Your task to perform on an android device: turn vacation reply on in the gmail app Image 0: 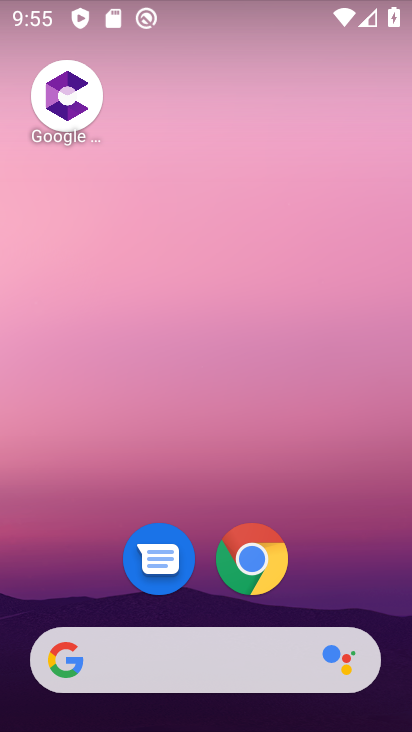
Step 0: drag from (357, 571) to (347, 68)
Your task to perform on an android device: turn vacation reply on in the gmail app Image 1: 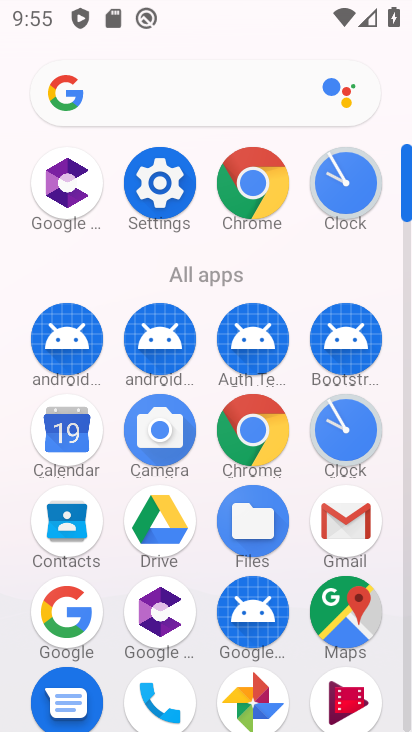
Step 1: click (342, 517)
Your task to perform on an android device: turn vacation reply on in the gmail app Image 2: 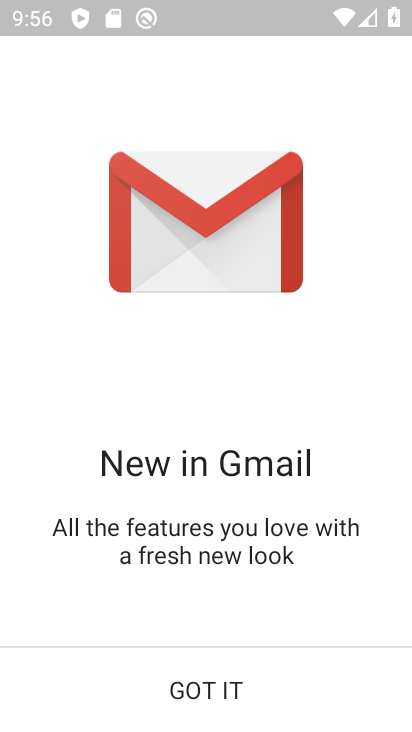
Step 2: click (203, 694)
Your task to perform on an android device: turn vacation reply on in the gmail app Image 3: 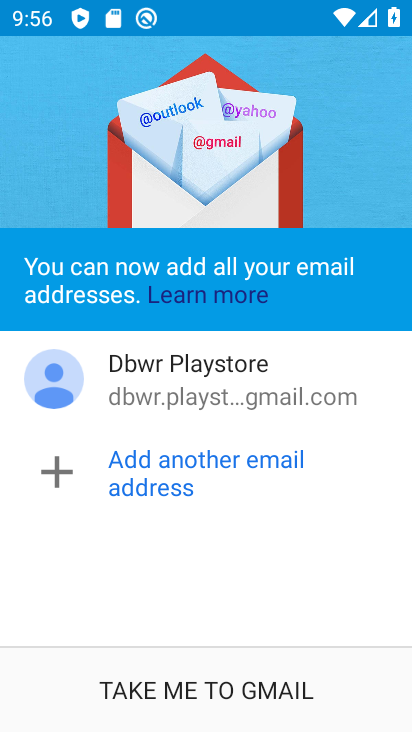
Step 3: click (203, 693)
Your task to perform on an android device: turn vacation reply on in the gmail app Image 4: 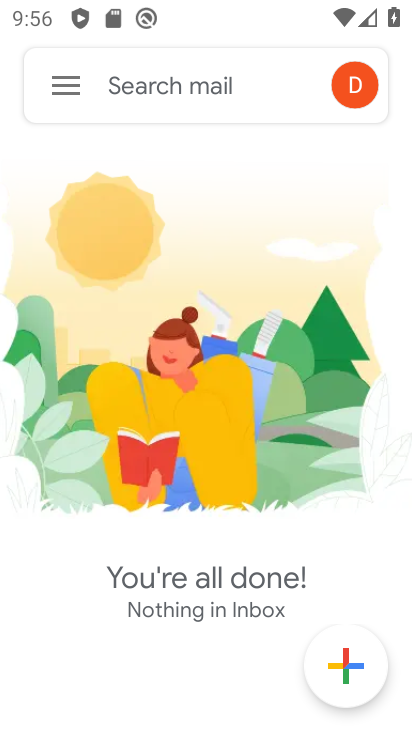
Step 4: click (70, 98)
Your task to perform on an android device: turn vacation reply on in the gmail app Image 5: 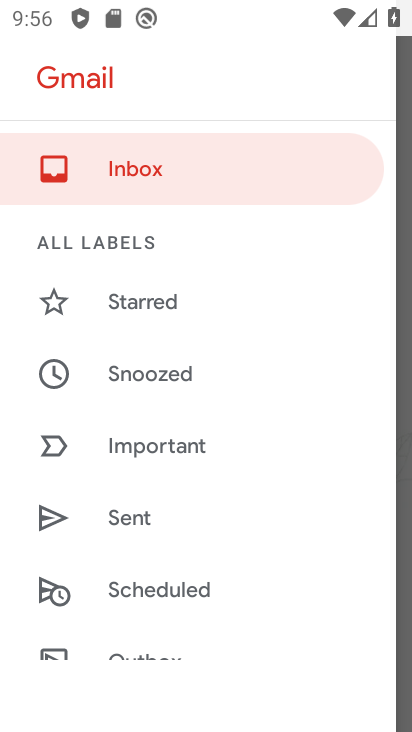
Step 5: drag from (84, 576) to (155, 130)
Your task to perform on an android device: turn vacation reply on in the gmail app Image 6: 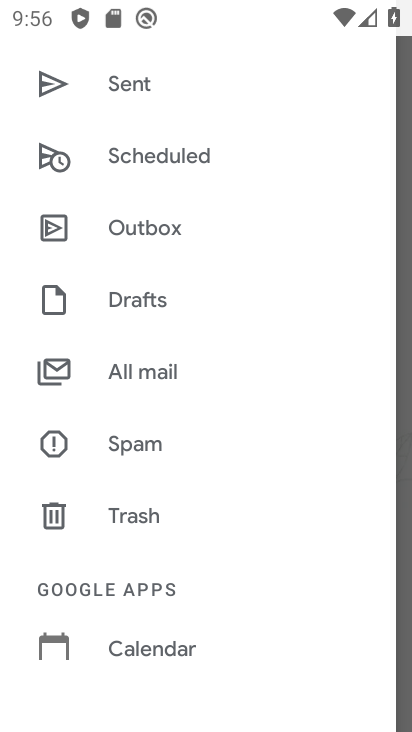
Step 6: drag from (181, 607) to (216, 131)
Your task to perform on an android device: turn vacation reply on in the gmail app Image 7: 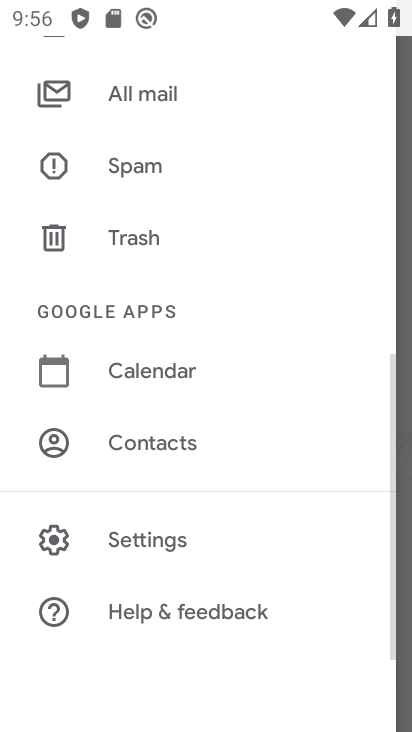
Step 7: click (140, 532)
Your task to perform on an android device: turn vacation reply on in the gmail app Image 8: 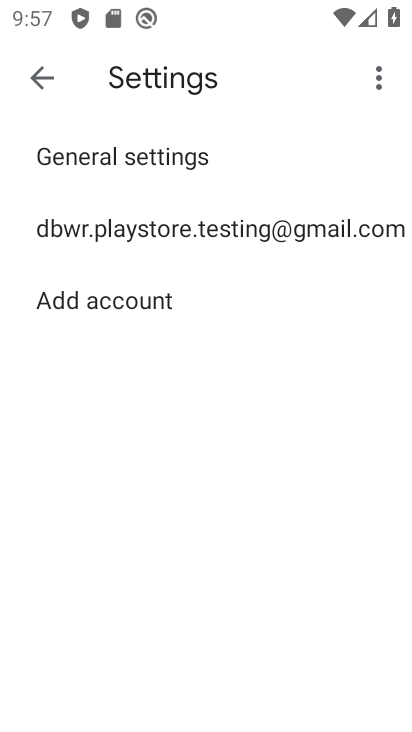
Step 8: click (79, 247)
Your task to perform on an android device: turn vacation reply on in the gmail app Image 9: 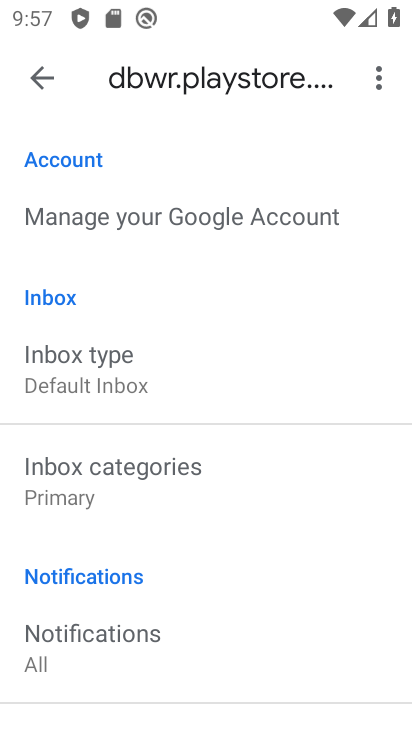
Step 9: click (199, 119)
Your task to perform on an android device: turn vacation reply on in the gmail app Image 10: 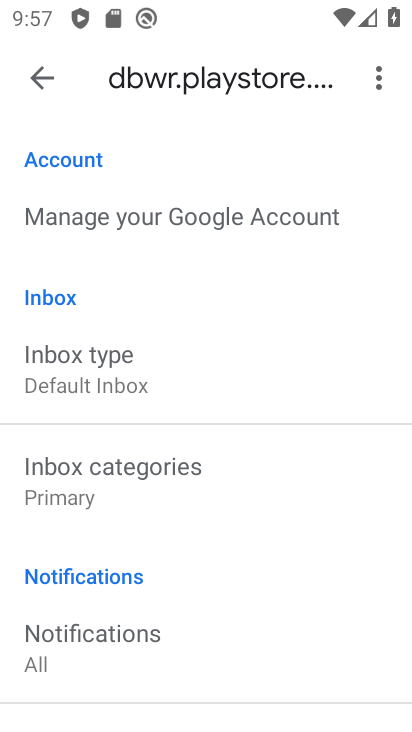
Step 10: drag from (136, 590) to (250, 128)
Your task to perform on an android device: turn vacation reply on in the gmail app Image 11: 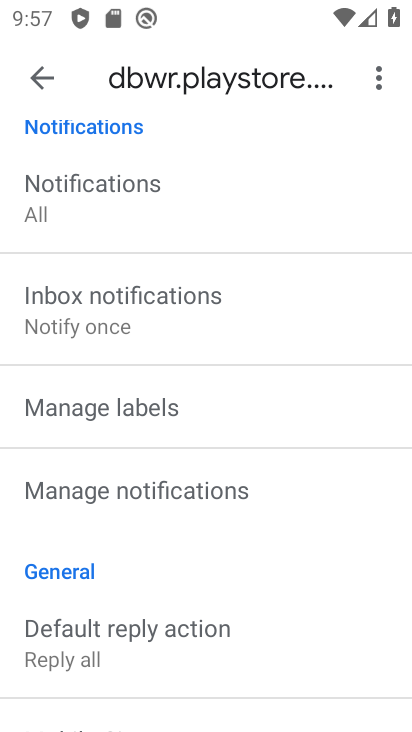
Step 11: drag from (181, 601) to (269, 173)
Your task to perform on an android device: turn vacation reply on in the gmail app Image 12: 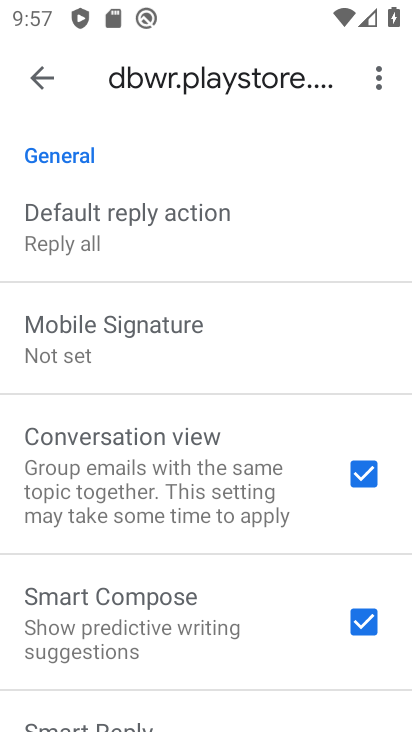
Step 12: drag from (198, 597) to (293, 197)
Your task to perform on an android device: turn vacation reply on in the gmail app Image 13: 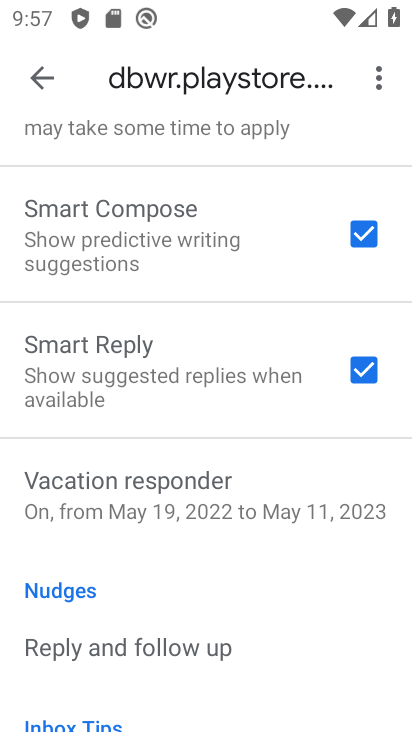
Step 13: click (147, 538)
Your task to perform on an android device: turn vacation reply on in the gmail app Image 14: 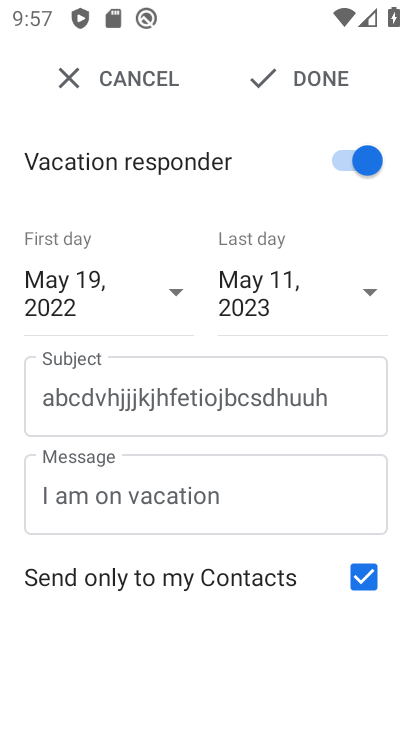
Step 14: task complete